Your task to perform on an android device: Go to ESPN.com Image 0: 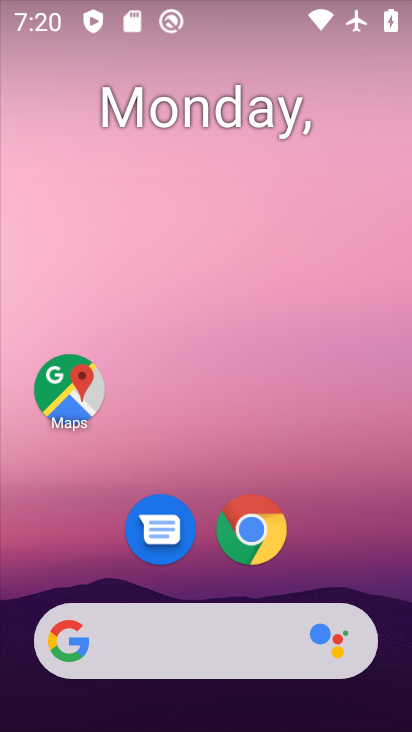
Step 0: click (256, 526)
Your task to perform on an android device: Go to ESPN.com Image 1: 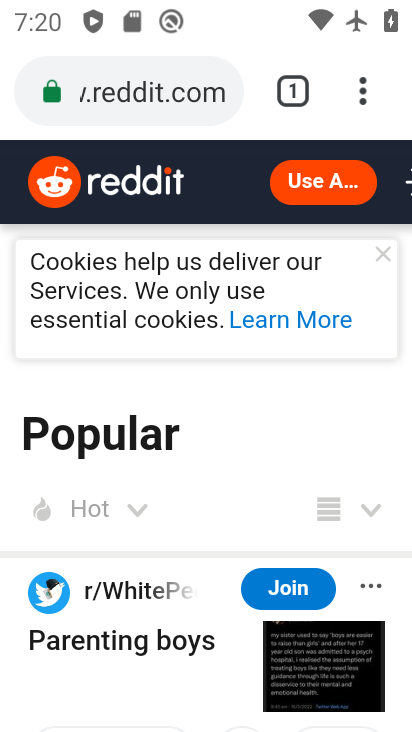
Step 1: click (368, 83)
Your task to perform on an android device: Go to ESPN.com Image 2: 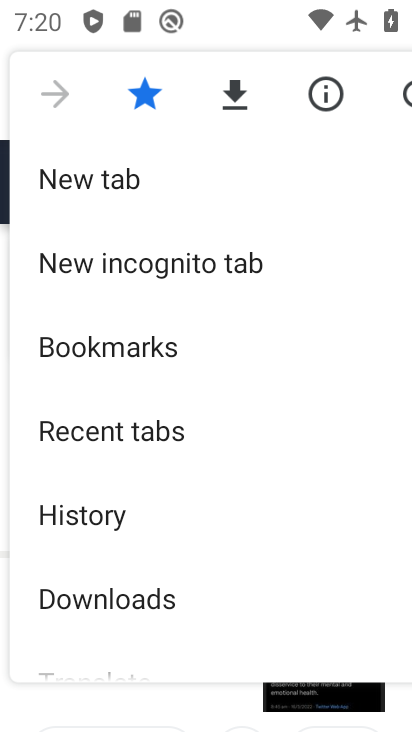
Step 2: click (109, 173)
Your task to perform on an android device: Go to ESPN.com Image 3: 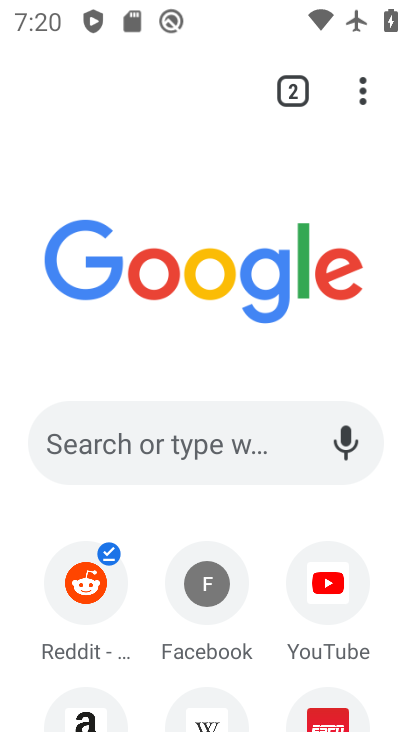
Step 3: click (207, 431)
Your task to perform on an android device: Go to ESPN.com Image 4: 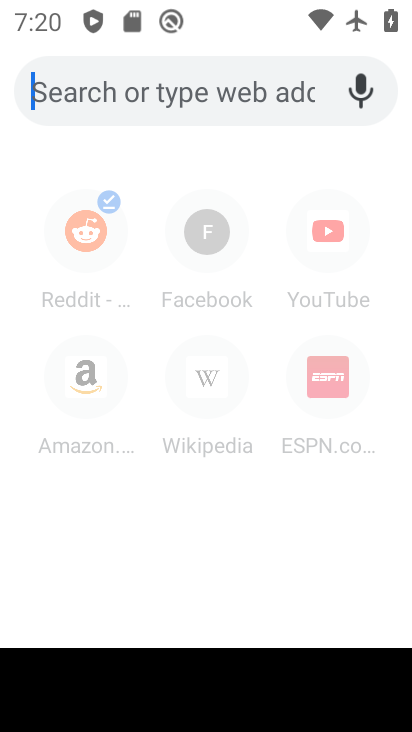
Step 4: type "espn.com"
Your task to perform on an android device: Go to ESPN.com Image 5: 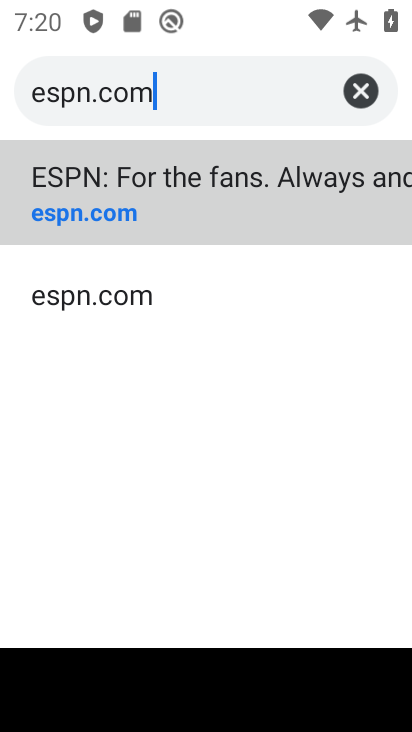
Step 5: click (120, 173)
Your task to perform on an android device: Go to ESPN.com Image 6: 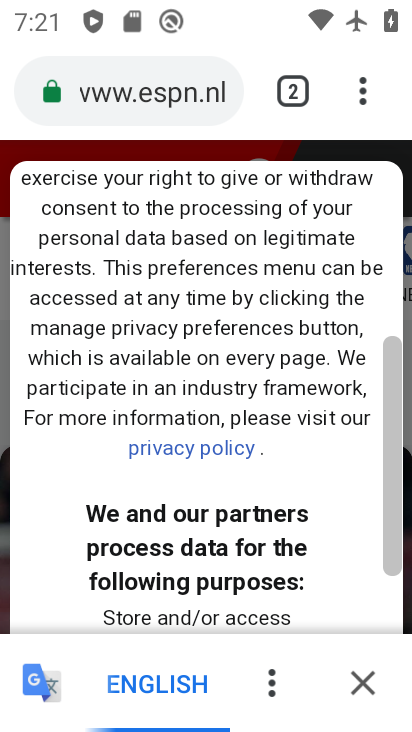
Step 6: task complete